Your task to perform on an android device: Go to wifi settings Image 0: 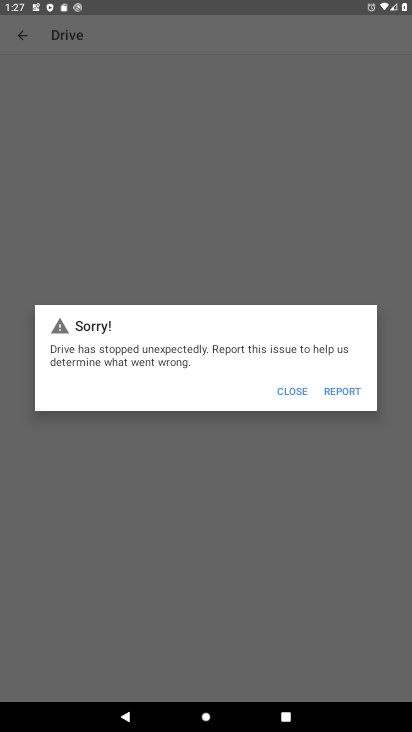
Step 0: press home button
Your task to perform on an android device: Go to wifi settings Image 1: 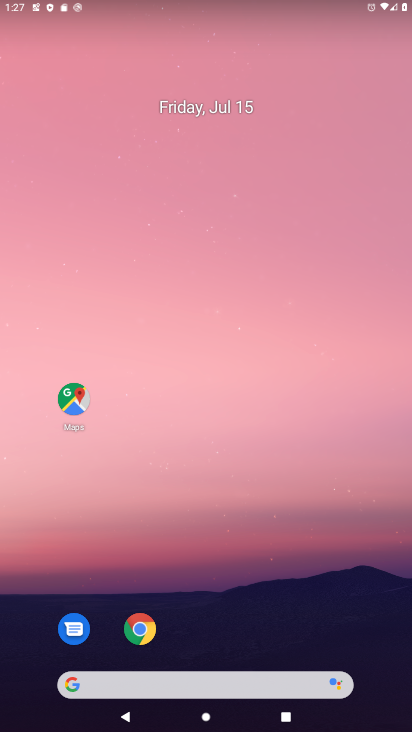
Step 1: drag from (269, 524) to (254, 58)
Your task to perform on an android device: Go to wifi settings Image 2: 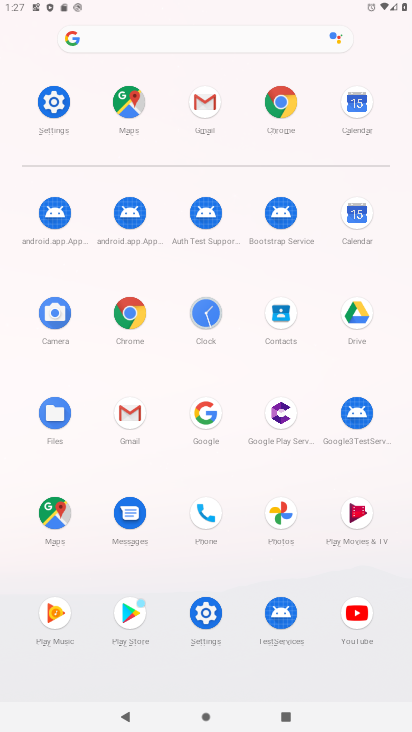
Step 2: click (52, 99)
Your task to perform on an android device: Go to wifi settings Image 3: 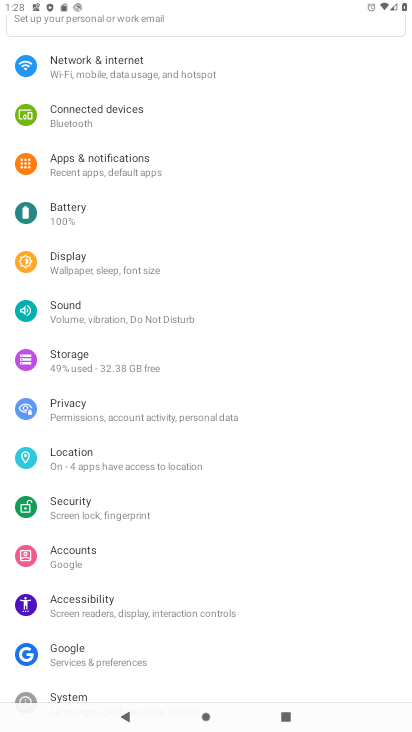
Step 3: click (97, 63)
Your task to perform on an android device: Go to wifi settings Image 4: 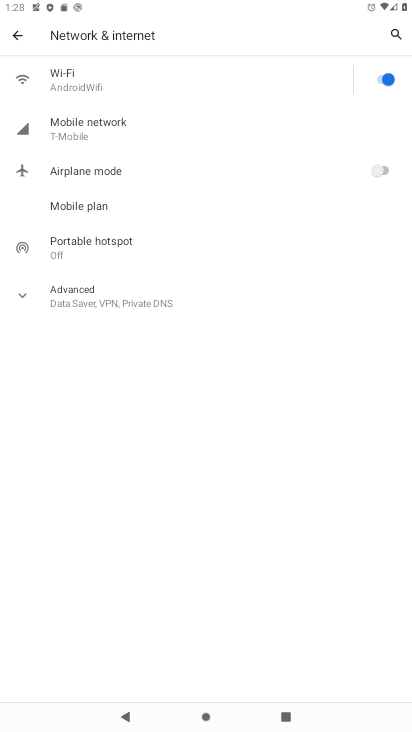
Step 4: click (169, 67)
Your task to perform on an android device: Go to wifi settings Image 5: 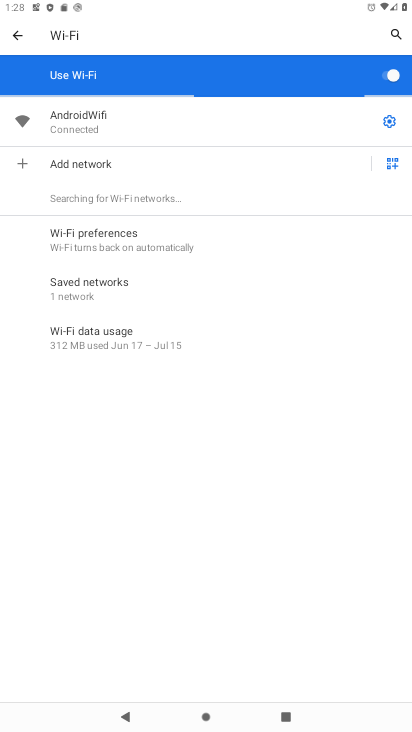
Step 5: click (393, 124)
Your task to perform on an android device: Go to wifi settings Image 6: 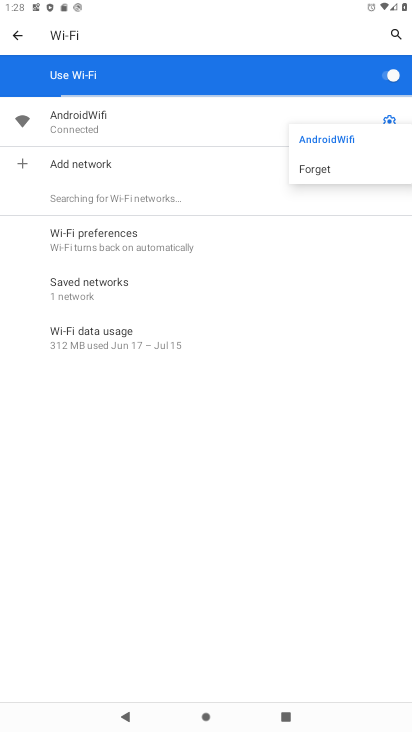
Step 6: click (380, 113)
Your task to perform on an android device: Go to wifi settings Image 7: 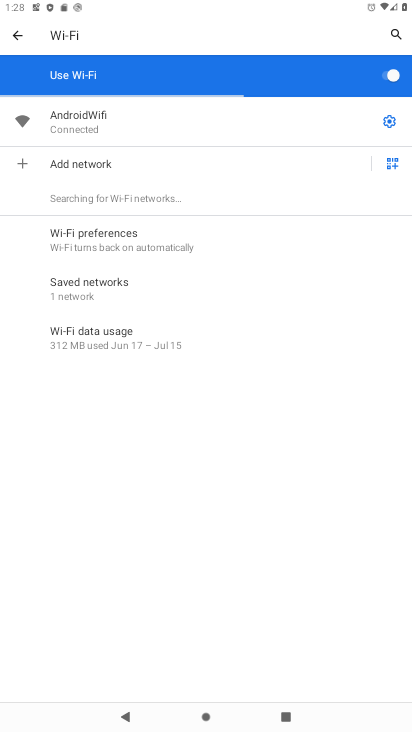
Step 7: click (390, 117)
Your task to perform on an android device: Go to wifi settings Image 8: 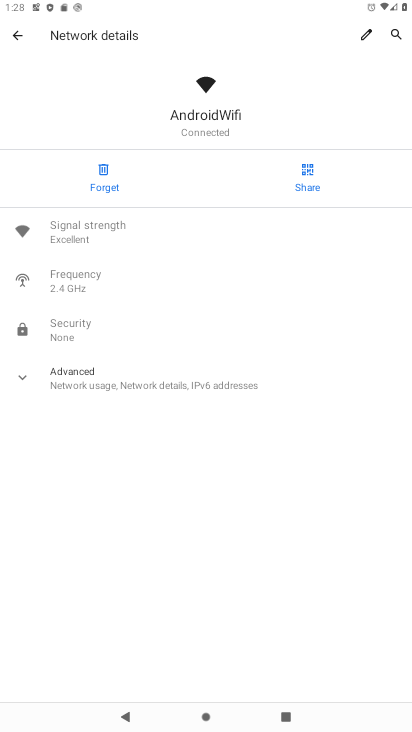
Step 8: task complete